Your task to perform on an android device: Open Youtube and go to "Your channel" Image 0: 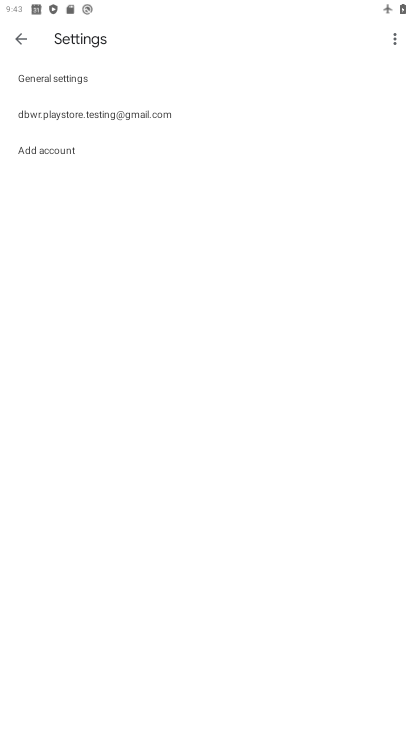
Step 0: press home button
Your task to perform on an android device: Open Youtube and go to "Your channel" Image 1: 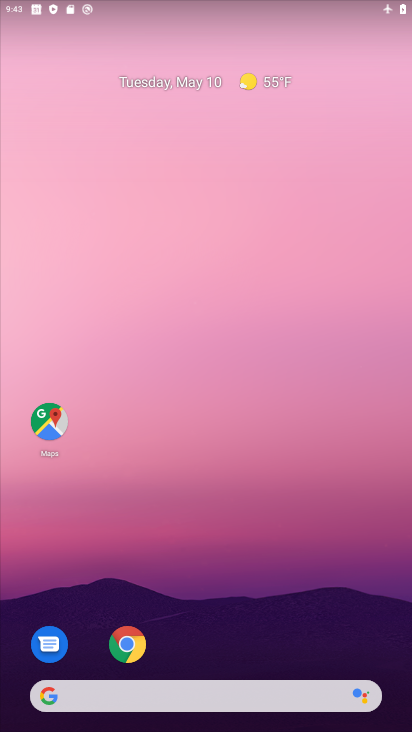
Step 1: drag from (270, 646) to (316, 301)
Your task to perform on an android device: Open Youtube and go to "Your channel" Image 2: 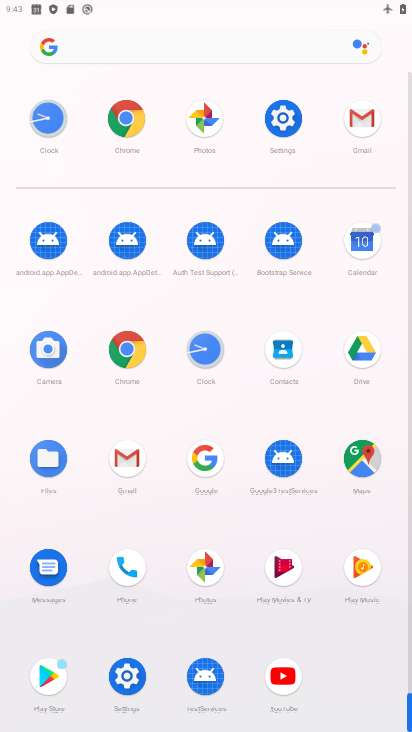
Step 2: click (268, 706)
Your task to perform on an android device: Open Youtube and go to "Your channel" Image 3: 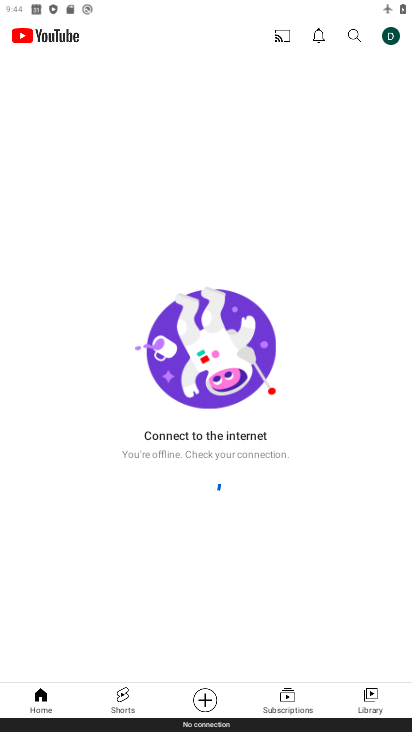
Step 3: click (378, 698)
Your task to perform on an android device: Open Youtube and go to "Your channel" Image 4: 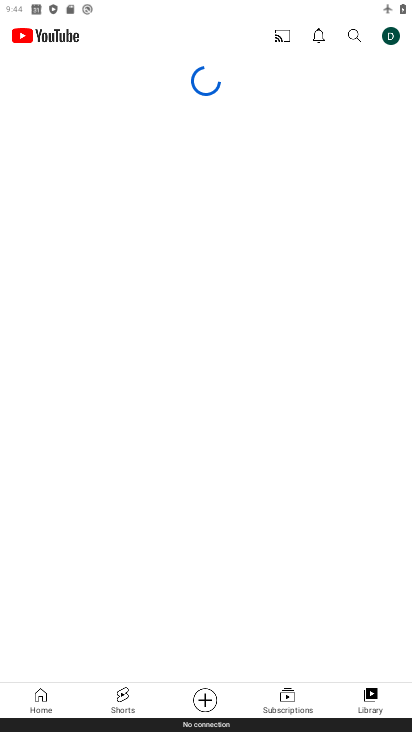
Step 4: task complete